Your task to perform on an android device: Show me popular games on the Play Store Image 0: 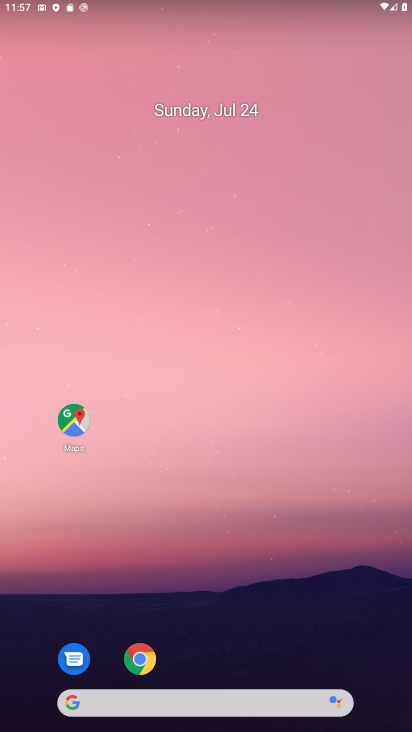
Step 0: drag from (210, 671) to (199, 20)
Your task to perform on an android device: Show me popular games on the Play Store Image 1: 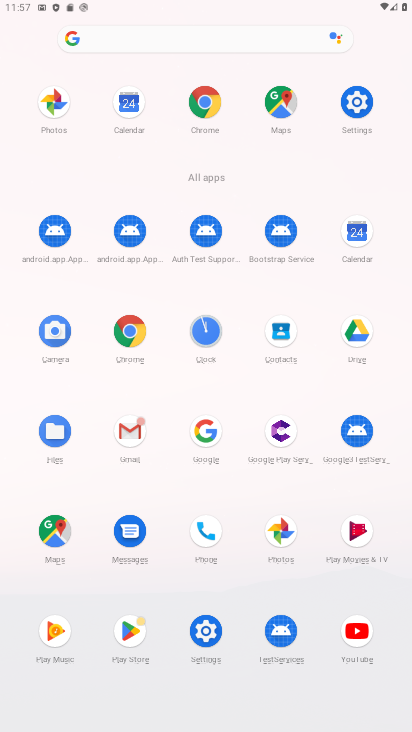
Step 1: click (128, 629)
Your task to perform on an android device: Show me popular games on the Play Store Image 2: 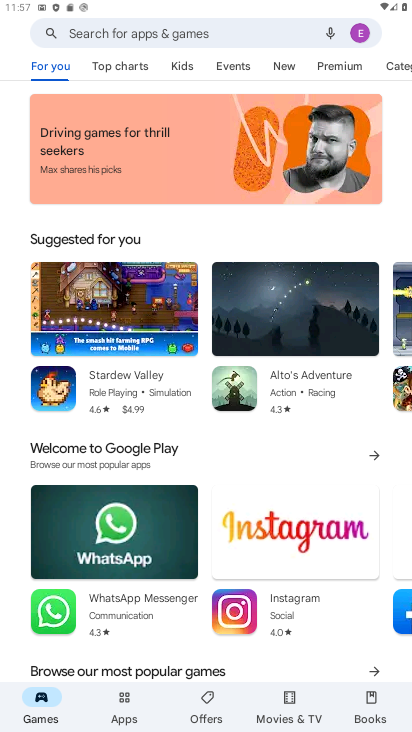
Step 2: task complete